Your task to perform on an android device: Open accessibility settings Image 0: 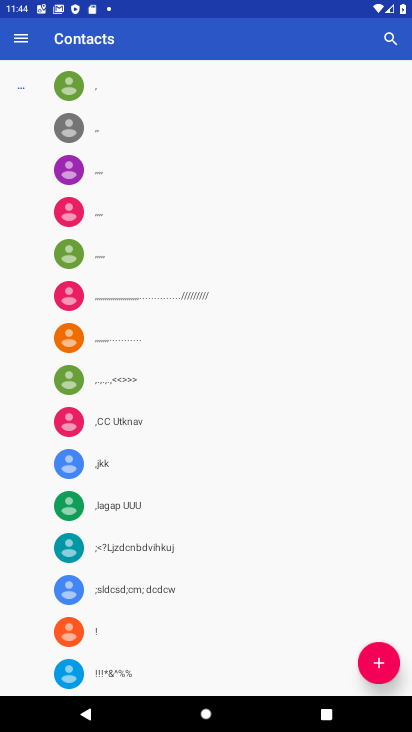
Step 0: press home button
Your task to perform on an android device: Open accessibility settings Image 1: 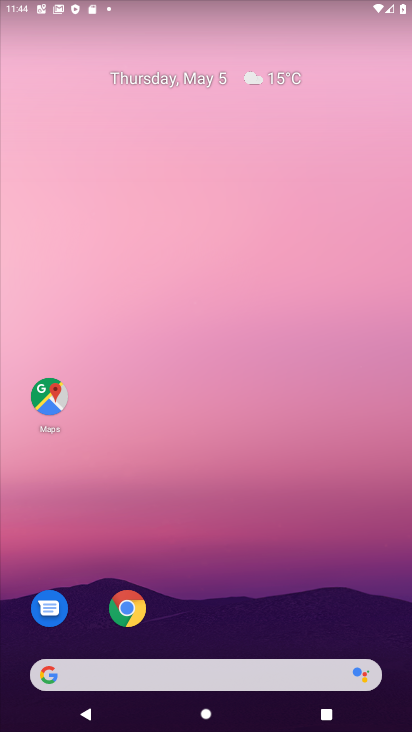
Step 1: drag from (285, 529) to (285, 114)
Your task to perform on an android device: Open accessibility settings Image 2: 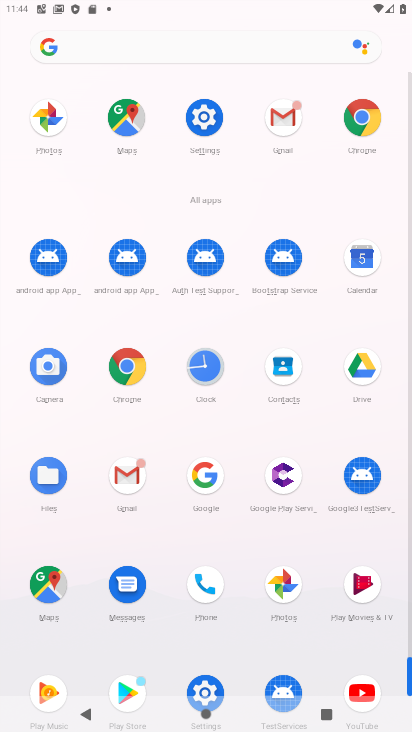
Step 2: click (208, 120)
Your task to perform on an android device: Open accessibility settings Image 3: 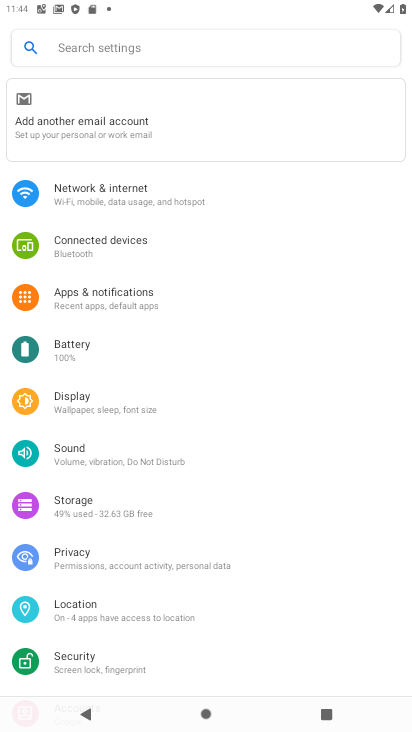
Step 3: drag from (267, 593) to (267, 206)
Your task to perform on an android device: Open accessibility settings Image 4: 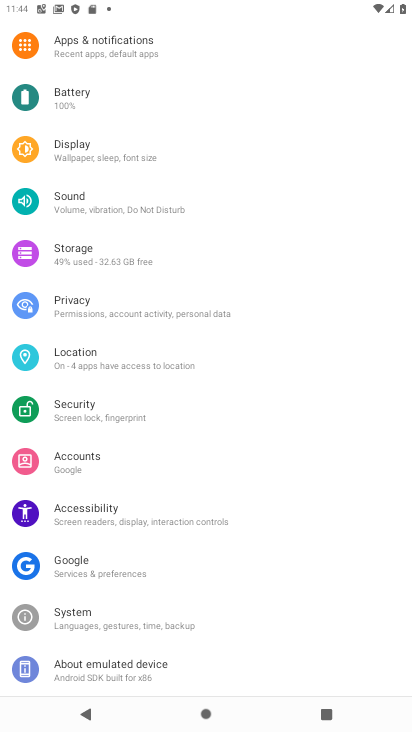
Step 4: click (187, 507)
Your task to perform on an android device: Open accessibility settings Image 5: 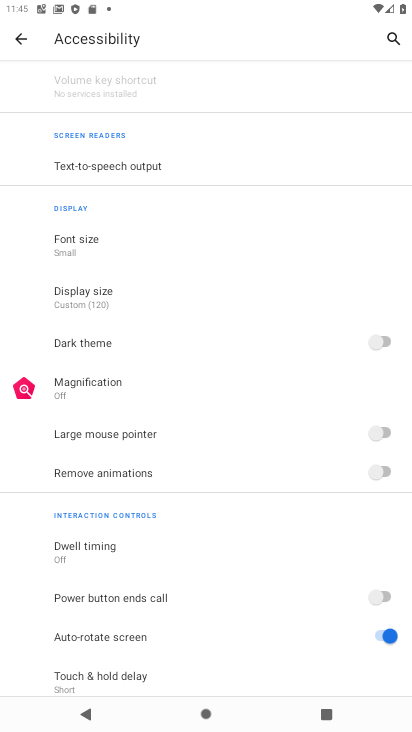
Step 5: task complete